Your task to perform on an android device: Open Google Image 0: 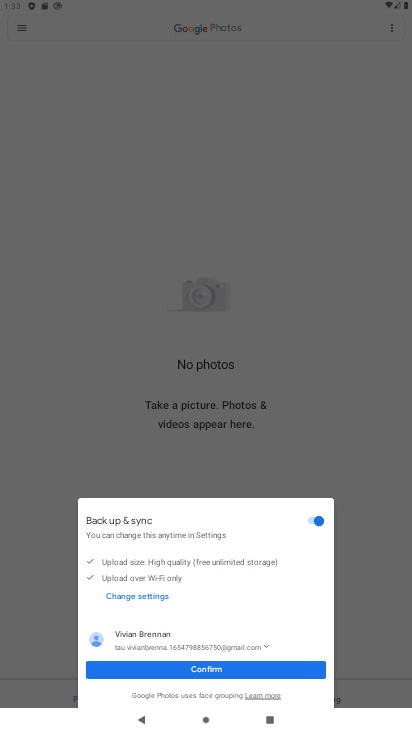
Step 0: press home button
Your task to perform on an android device: Open Google Image 1: 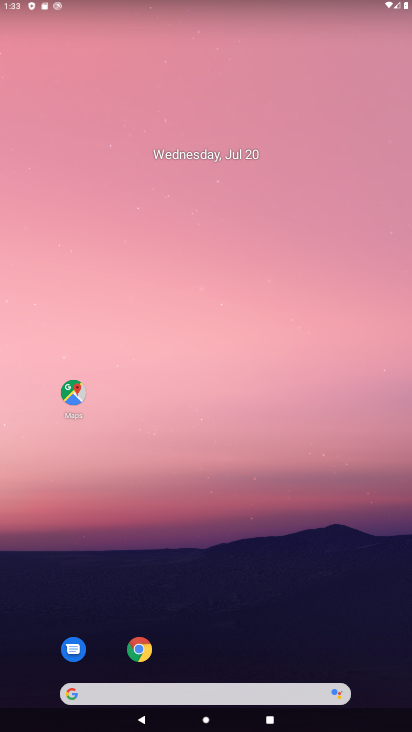
Step 1: click (199, 697)
Your task to perform on an android device: Open Google Image 2: 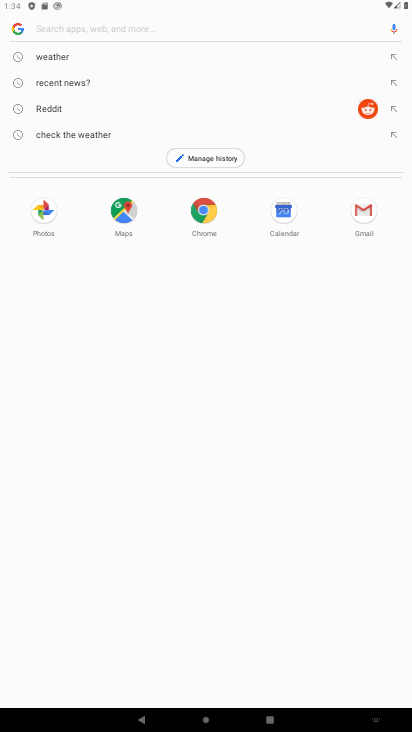
Step 2: task complete